Your task to perform on an android device: turn off location Image 0: 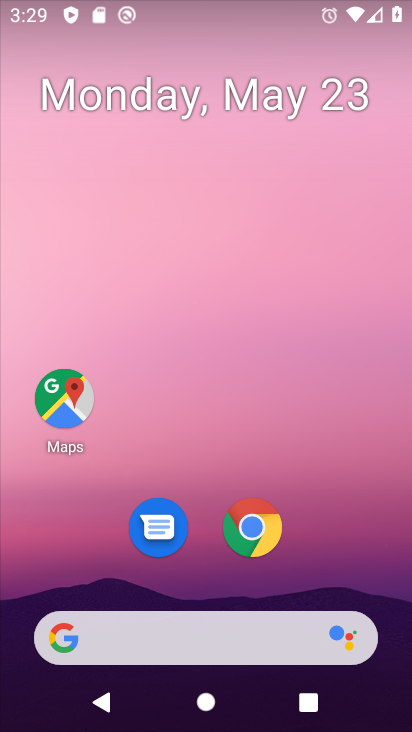
Step 0: drag from (363, 564) to (309, 114)
Your task to perform on an android device: turn off location Image 1: 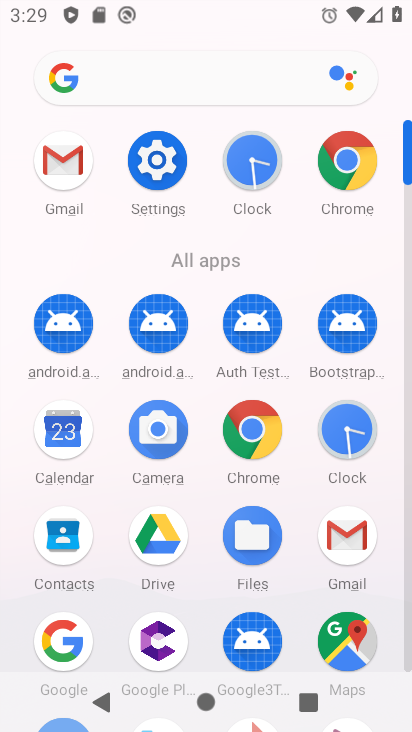
Step 1: click (154, 160)
Your task to perform on an android device: turn off location Image 2: 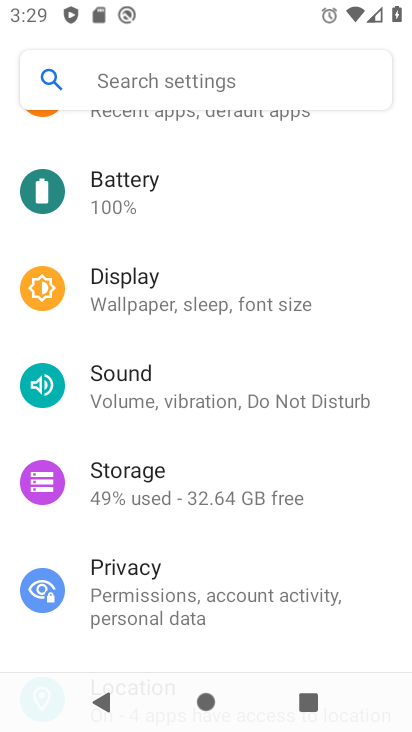
Step 2: drag from (307, 567) to (291, 204)
Your task to perform on an android device: turn off location Image 3: 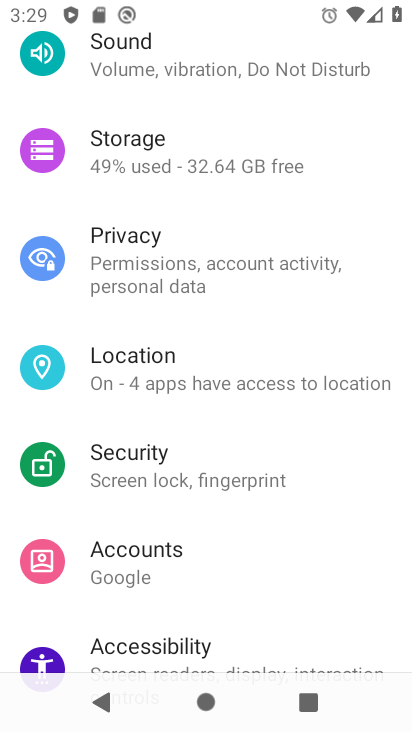
Step 3: click (243, 371)
Your task to perform on an android device: turn off location Image 4: 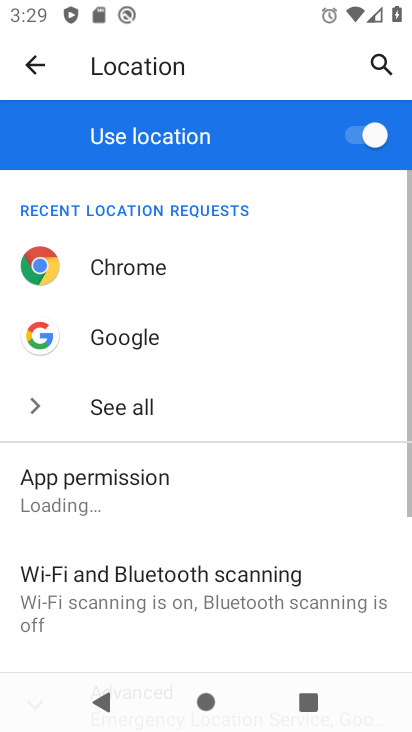
Step 4: click (367, 132)
Your task to perform on an android device: turn off location Image 5: 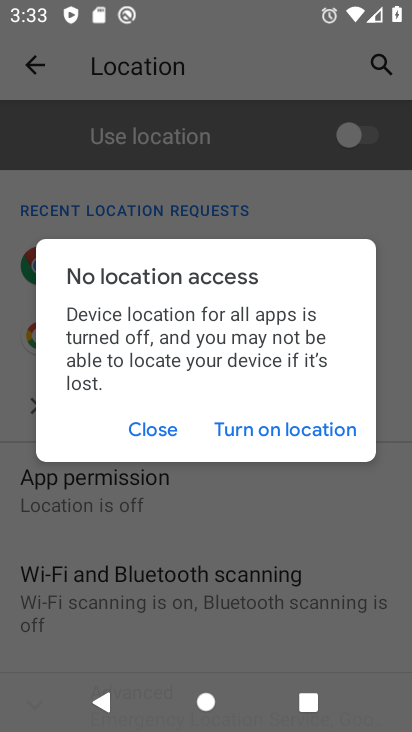
Step 5: click (161, 430)
Your task to perform on an android device: turn off location Image 6: 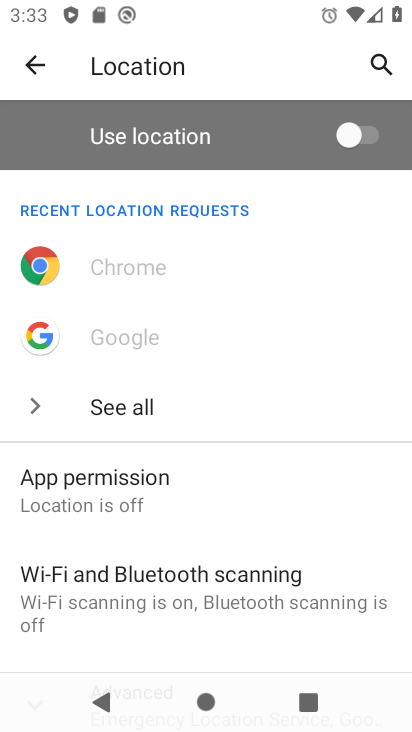
Step 6: task complete